Your task to perform on an android device: turn off data saver in the chrome app Image 0: 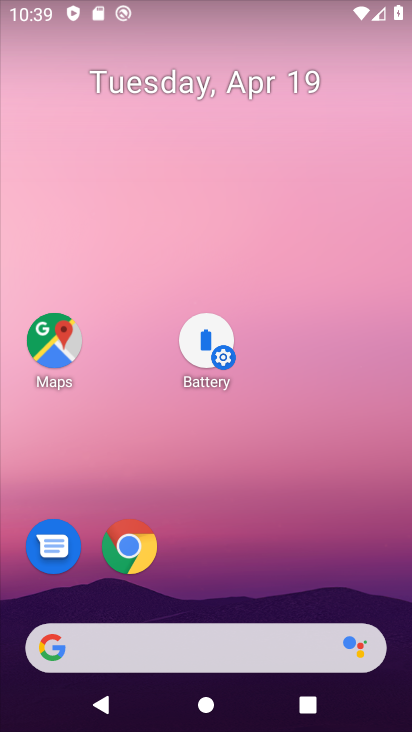
Step 0: click (119, 548)
Your task to perform on an android device: turn off data saver in the chrome app Image 1: 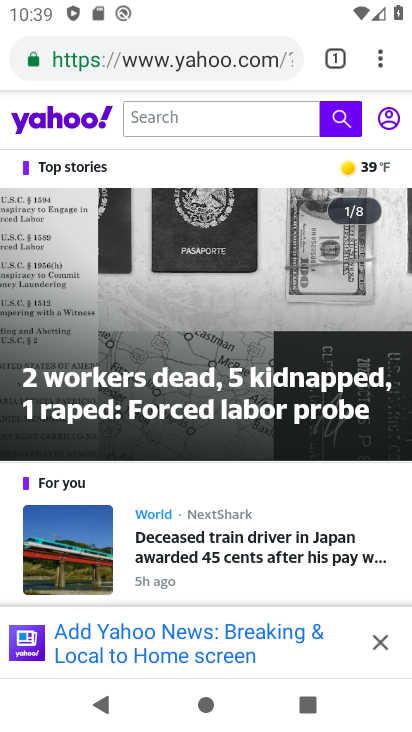
Step 1: click (384, 52)
Your task to perform on an android device: turn off data saver in the chrome app Image 2: 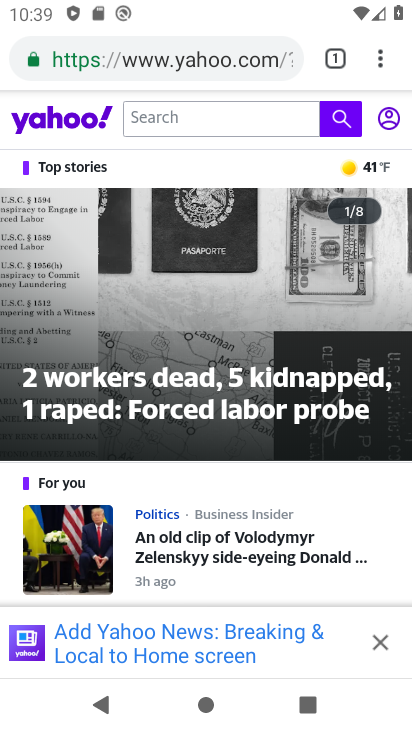
Step 2: click (381, 58)
Your task to perform on an android device: turn off data saver in the chrome app Image 3: 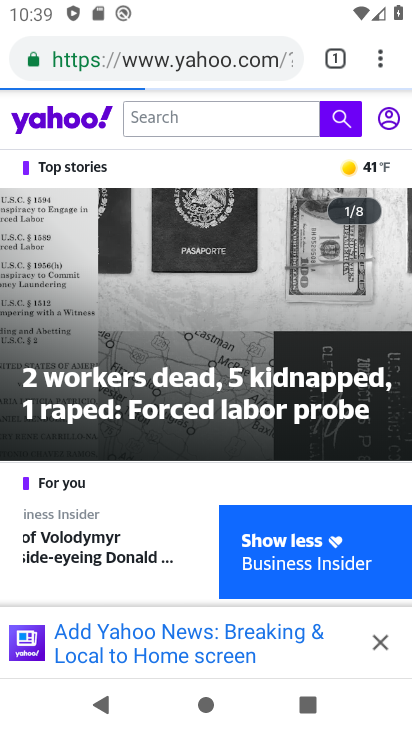
Step 3: drag from (383, 58) to (197, 566)
Your task to perform on an android device: turn off data saver in the chrome app Image 4: 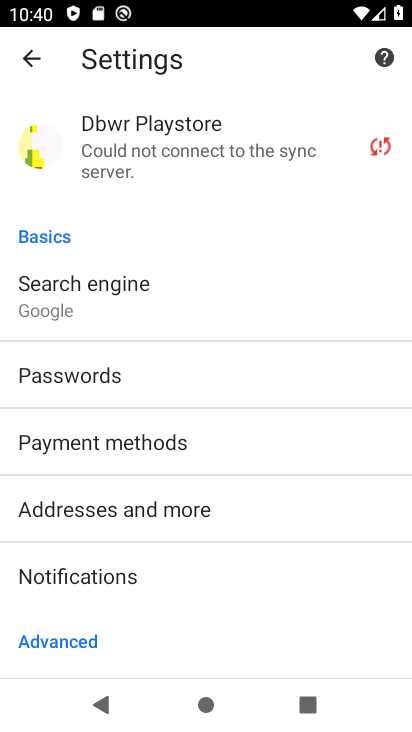
Step 4: drag from (138, 583) to (224, 125)
Your task to perform on an android device: turn off data saver in the chrome app Image 5: 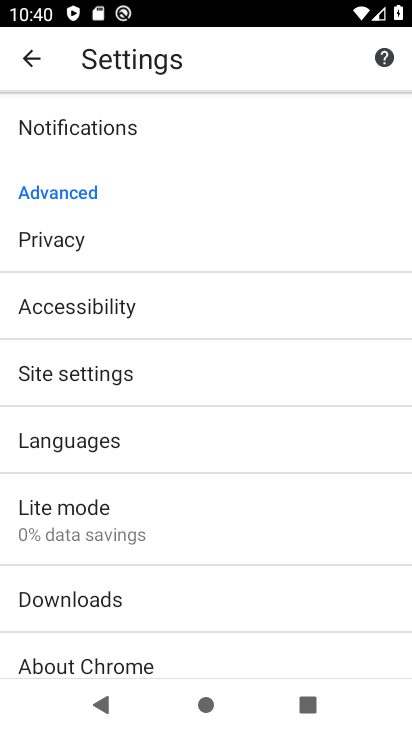
Step 5: click (98, 506)
Your task to perform on an android device: turn off data saver in the chrome app Image 6: 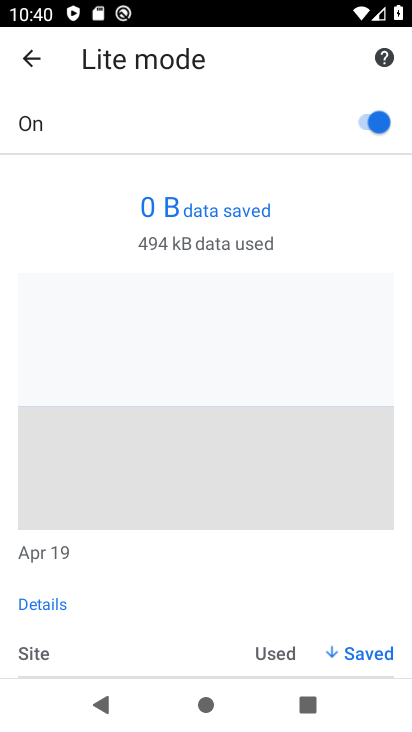
Step 6: click (375, 121)
Your task to perform on an android device: turn off data saver in the chrome app Image 7: 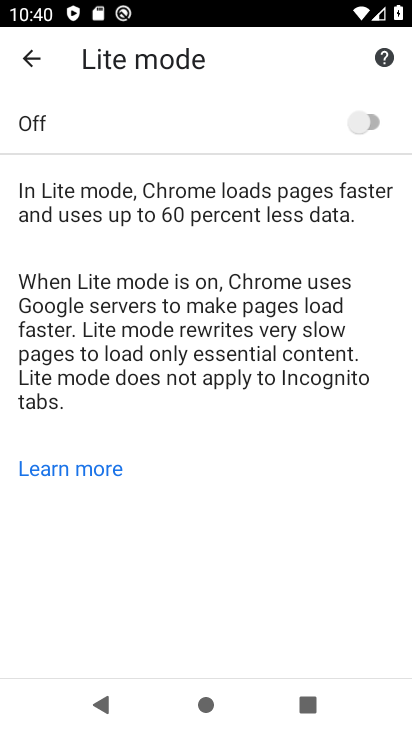
Step 7: task complete